Your task to perform on an android device: turn off airplane mode Image 0: 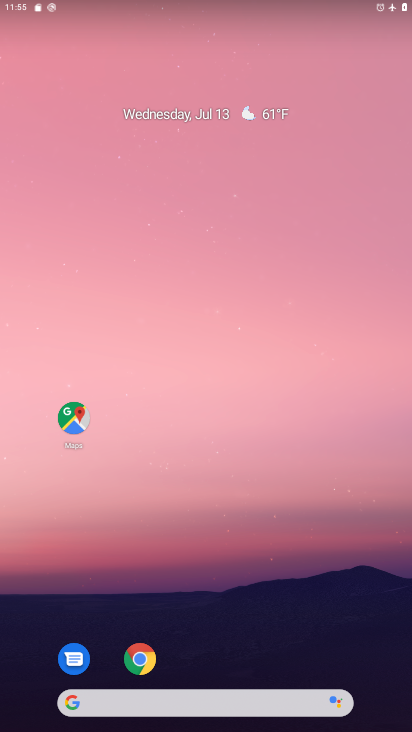
Step 0: press home button
Your task to perform on an android device: turn off airplane mode Image 1: 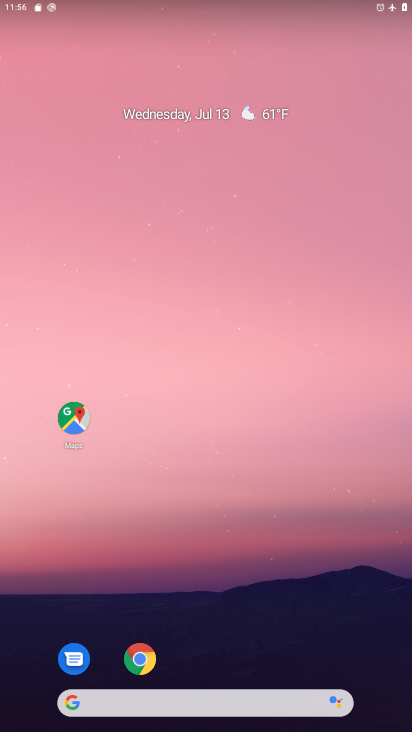
Step 1: drag from (282, 9) to (259, 690)
Your task to perform on an android device: turn off airplane mode Image 2: 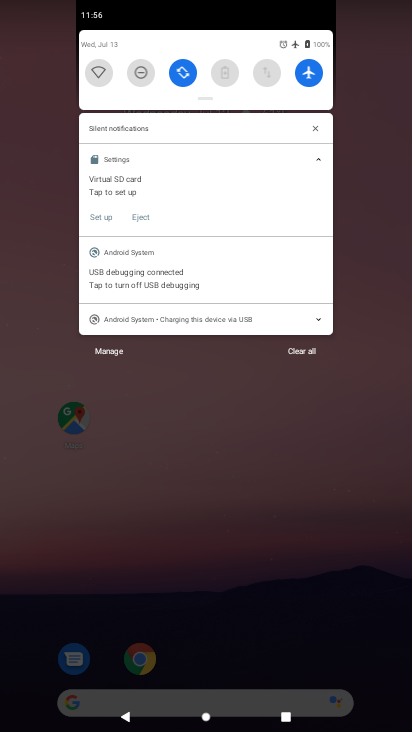
Step 2: click (305, 66)
Your task to perform on an android device: turn off airplane mode Image 3: 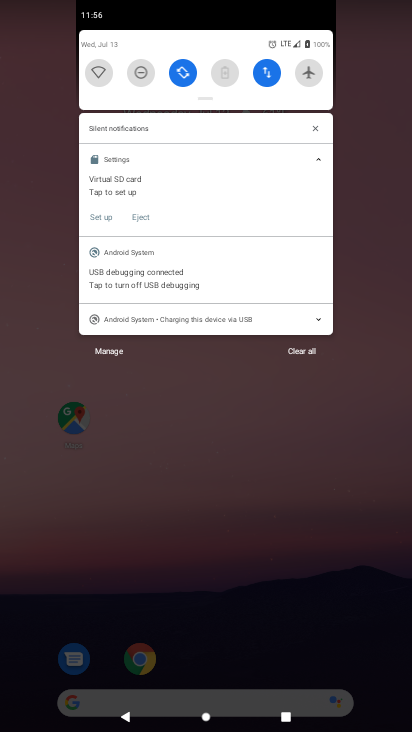
Step 3: task complete